Your task to perform on an android device: check data usage Image 0: 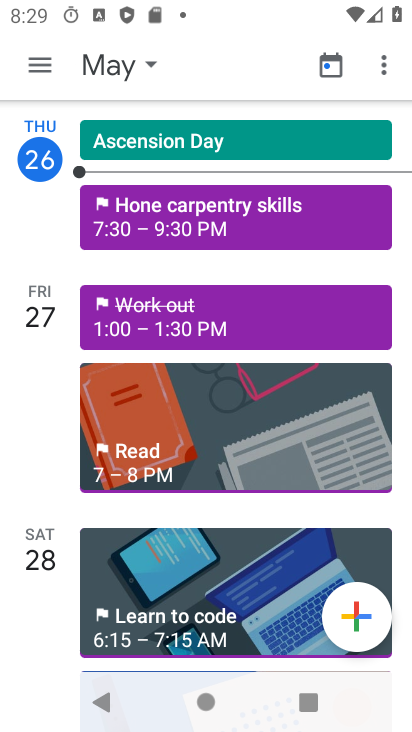
Step 0: press home button
Your task to perform on an android device: check data usage Image 1: 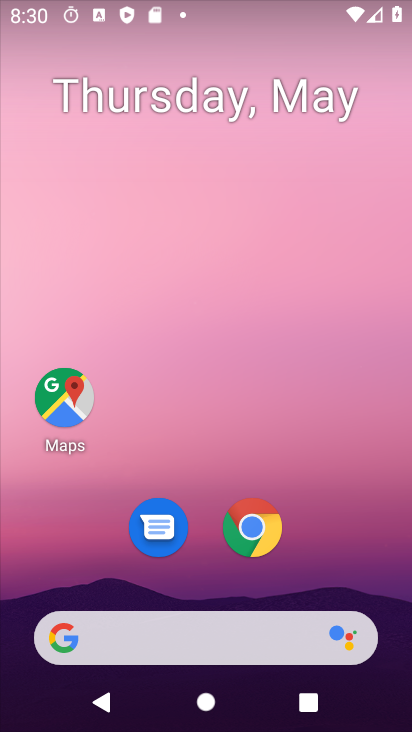
Step 1: drag from (3, 667) to (346, 197)
Your task to perform on an android device: check data usage Image 2: 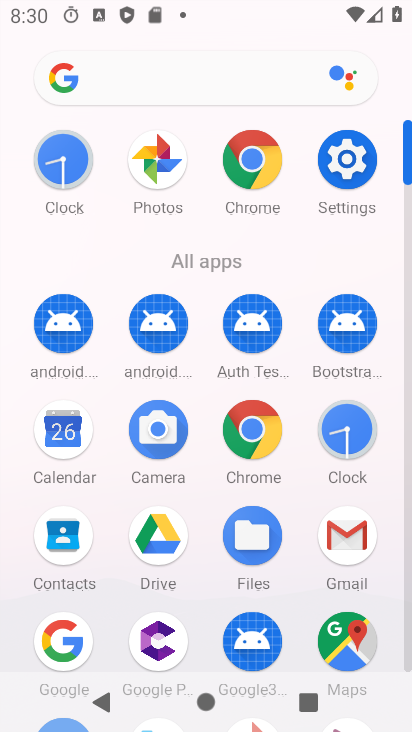
Step 2: click (355, 151)
Your task to perform on an android device: check data usage Image 3: 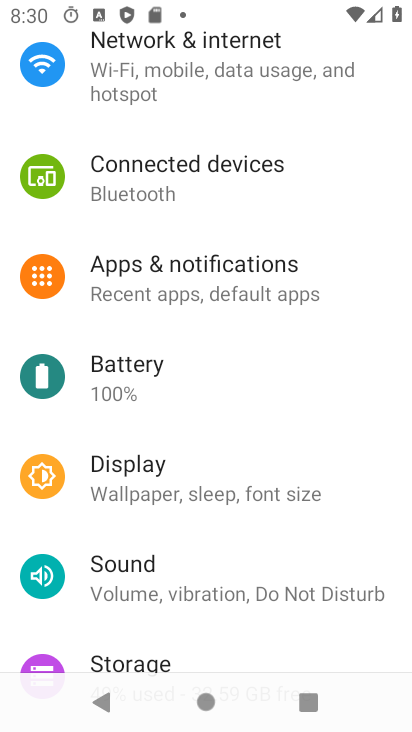
Step 3: click (229, 83)
Your task to perform on an android device: check data usage Image 4: 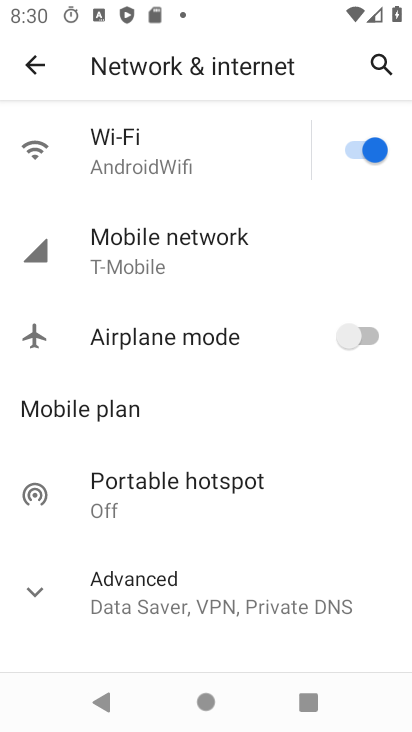
Step 4: click (181, 248)
Your task to perform on an android device: check data usage Image 5: 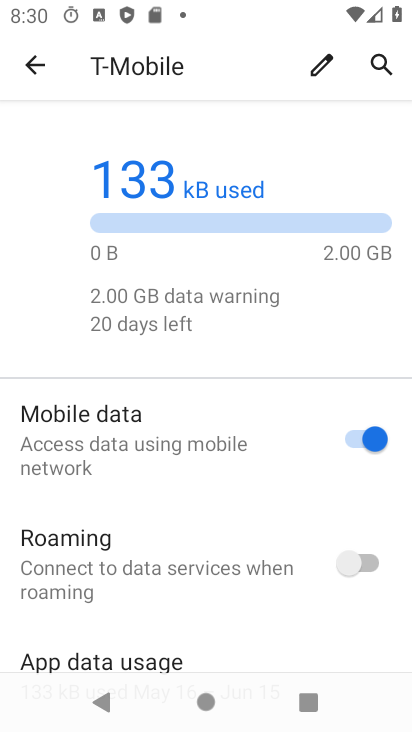
Step 5: task complete